Your task to perform on an android device: Open accessibility settings Image 0: 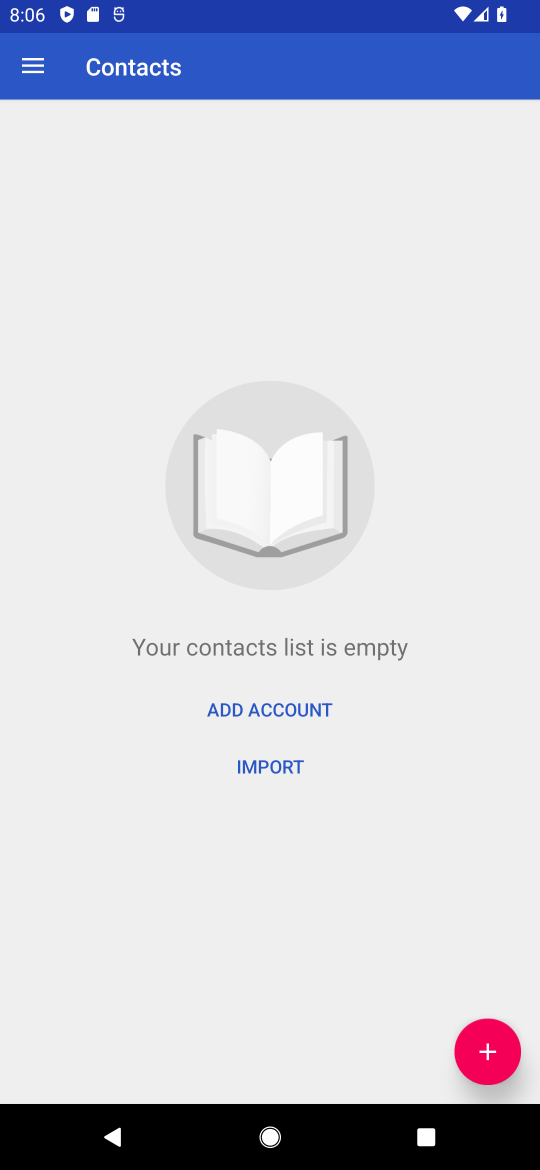
Step 0: press back button
Your task to perform on an android device: Open accessibility settings Image 1: 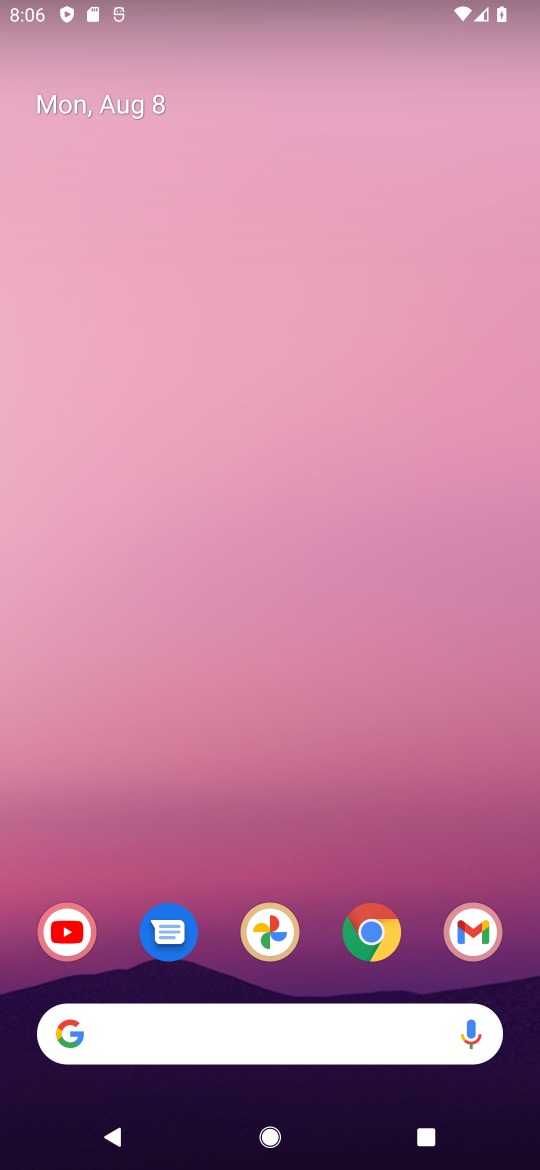
Step 1: drag from (273, 748) to (305, 11)
Your task to perform on an android device: Open accessibility settings Image 2: 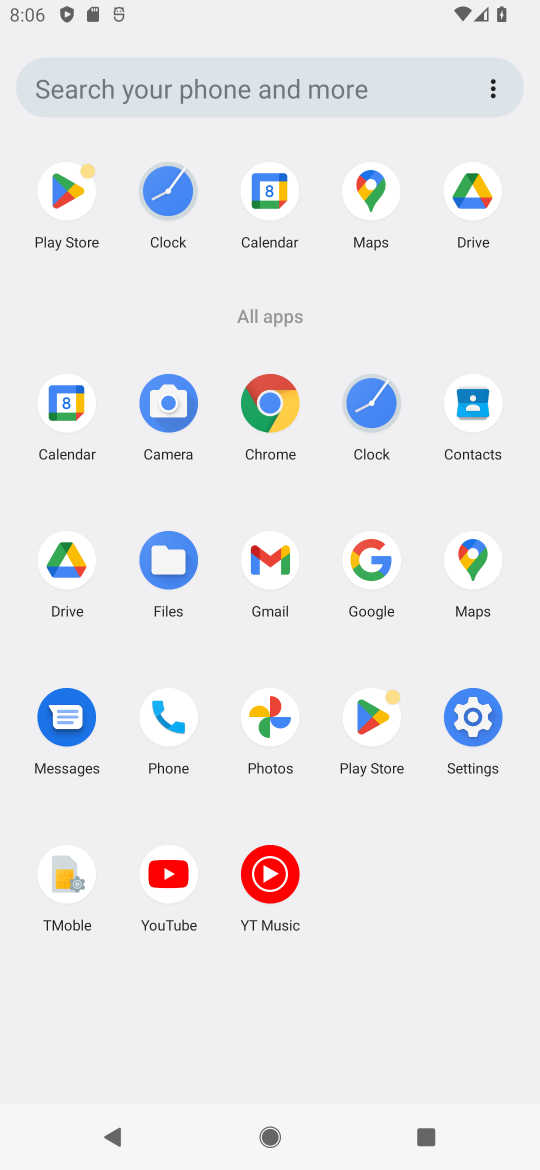
Step 2: click (462, 707)
Your task to perform on an android device: Open accessibility settings Image 3: 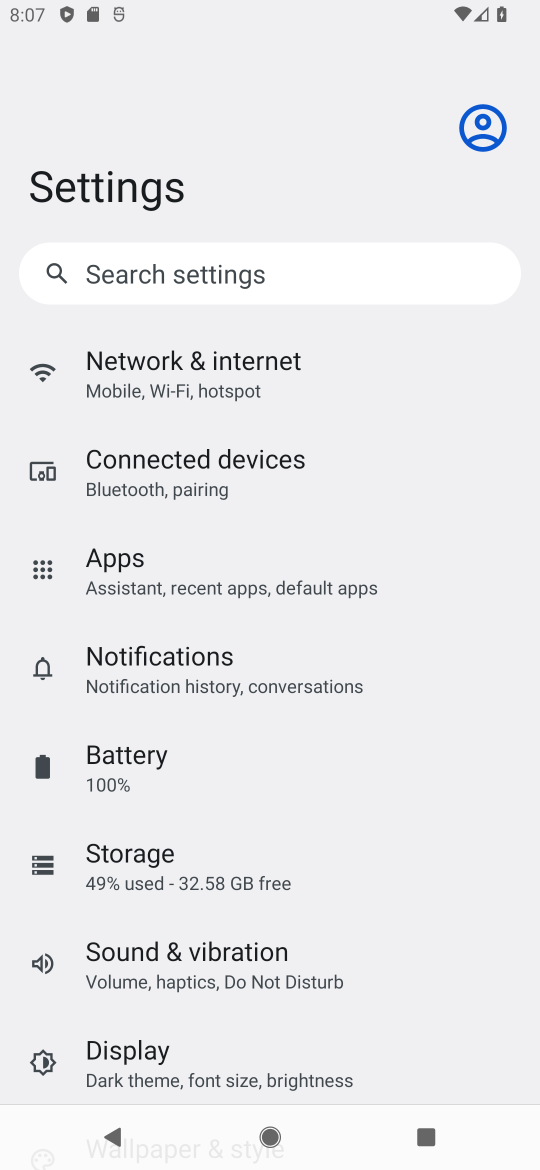
Step 3: drag from (171, 1042) to (285, 53)
Your task to perform on an android device: Open accessibility settings Image 4: 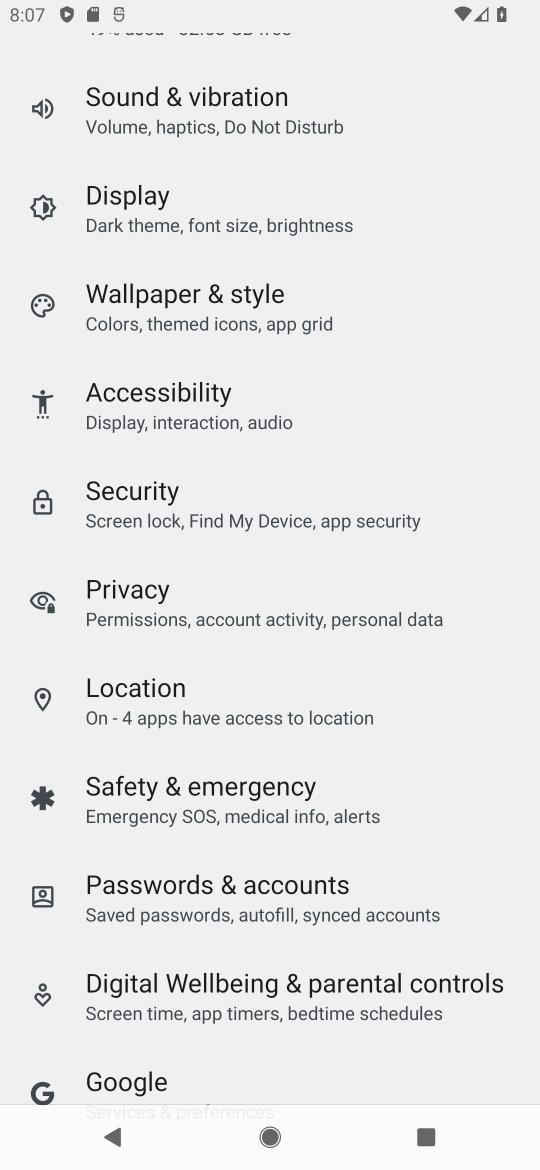
Step 4: click (167, 639)
Your task to perform on an android device: Open accessibility settings Image 5: 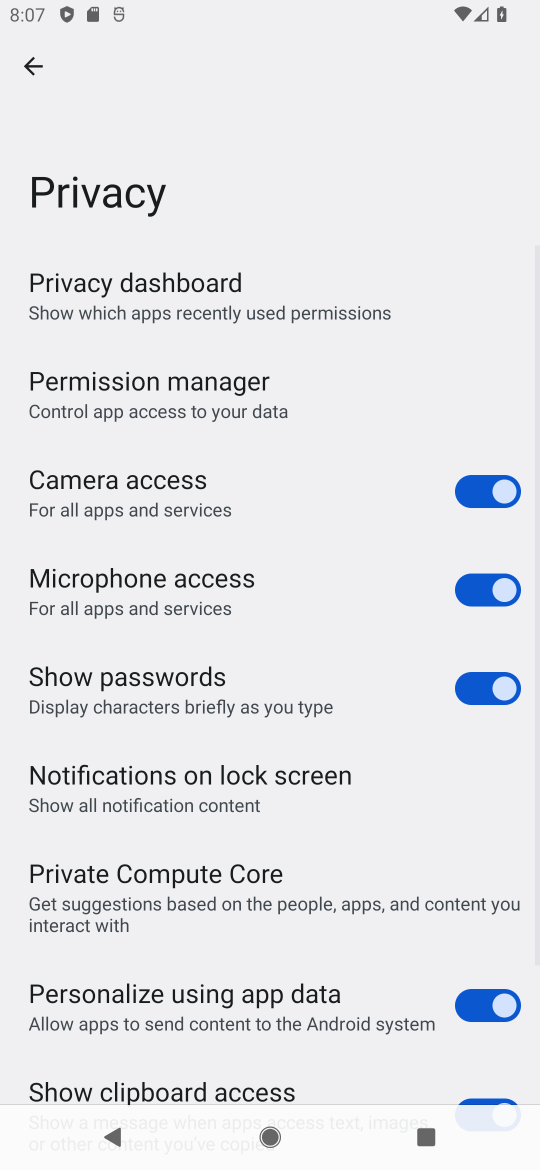
Step 5: click (42, 48)
Your task to perform on an android device: Open accessibility settings Image 6: 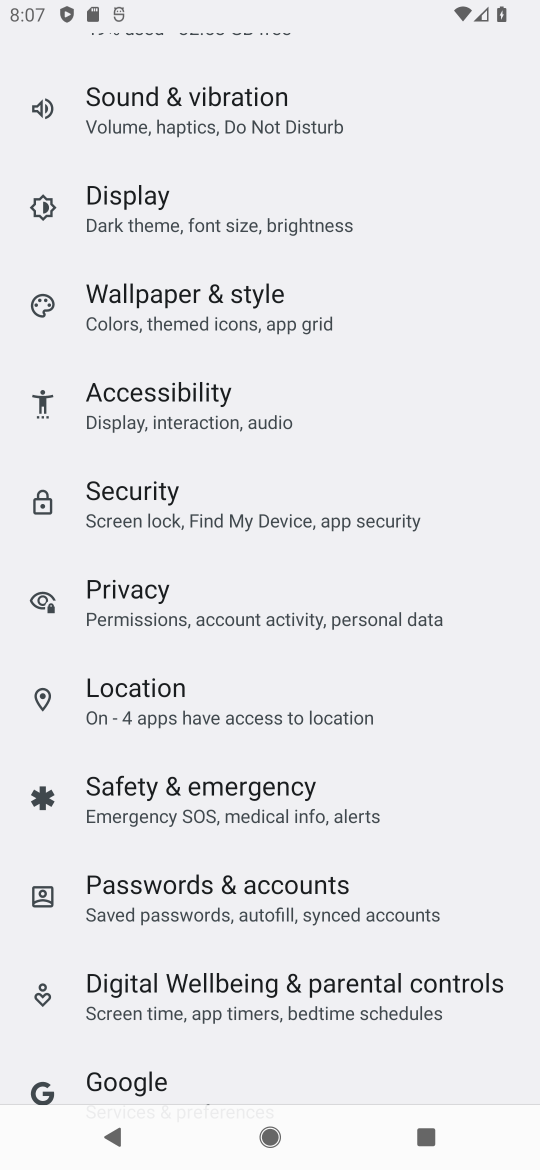
Step 6: click (209, 428)
Your task to perform on an android device: Open accessibility settings Image 7: 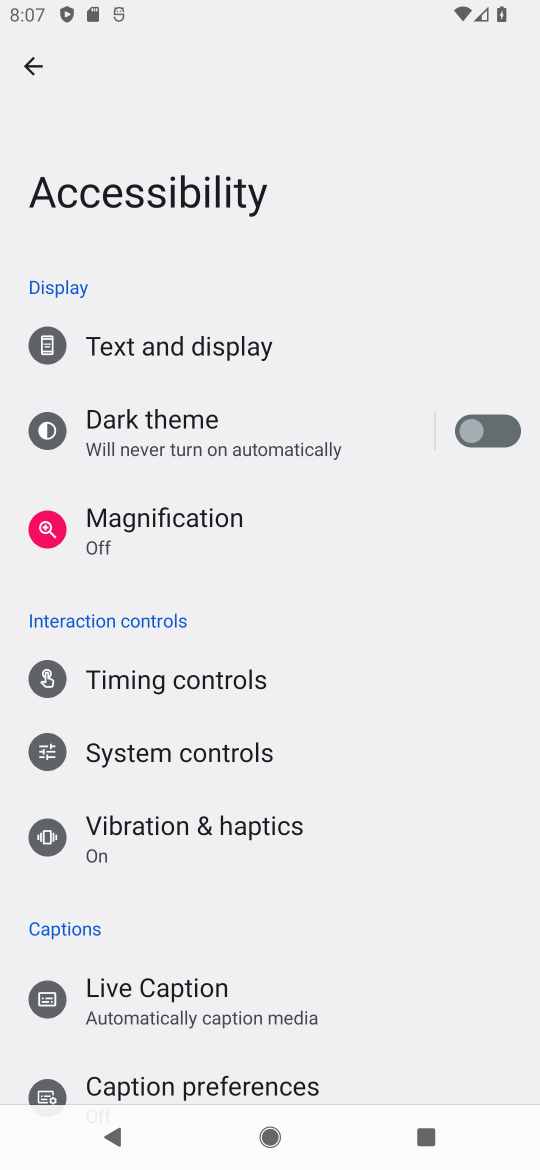
Step 7: task complete